Your task to perform on an android device: Search for sushi restaurants on Maps Image 0: 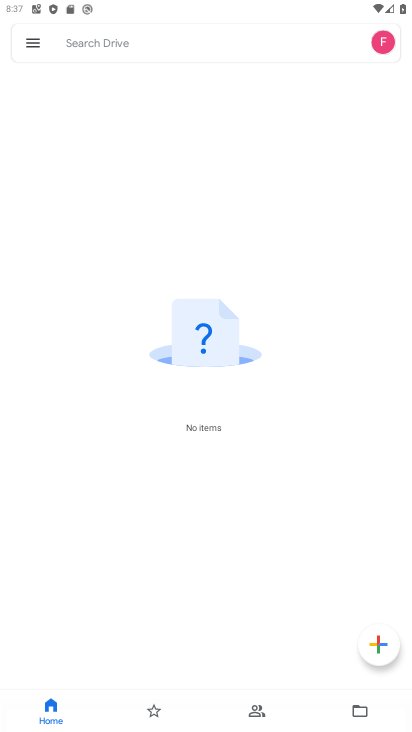
Step 0: drag from (171, 520) to (384, 125)
Your task to perform on an android device: Search for sushi restaurants on Maps Image 1: 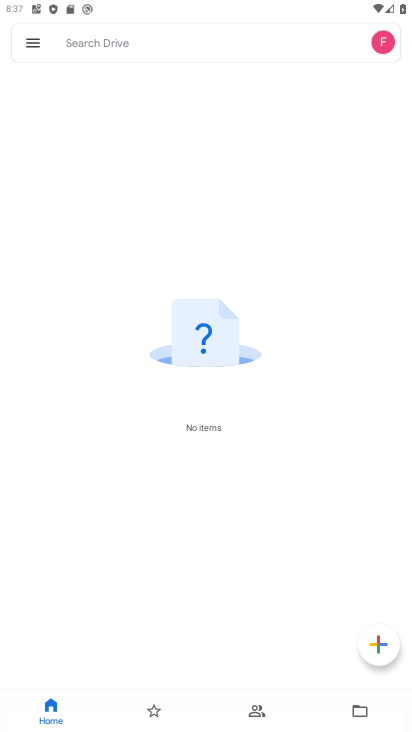
Step 1: press home button
Your task to perform on an android device: Search for sushi restaurants on Maps Image 2: 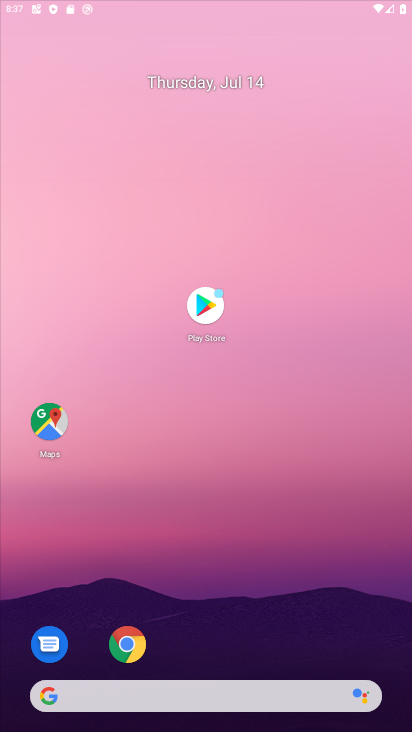
Step 2: drag from (249, 485) to (297, 177)
Your task to perform on an android device: Search for sushi restaurants on Maps Image 3: 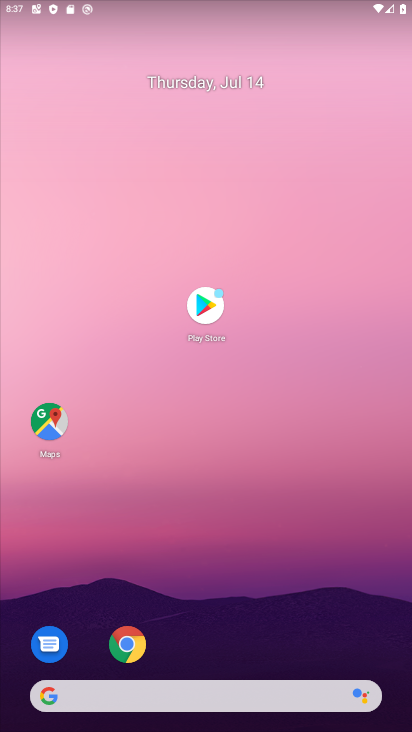
Step 3: drag from (192, 664) to (217, 377)
Your task to perform on an android device: Search for sushi restaurants on Maps Image 4: 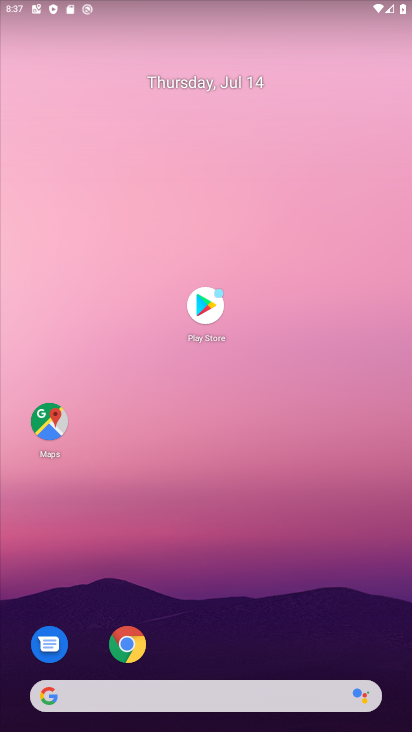
Step 4: drag from (197, 670) to (214, 192)
Your task to perform on an android device: Search for sushi restaurants on Maps Image 5: 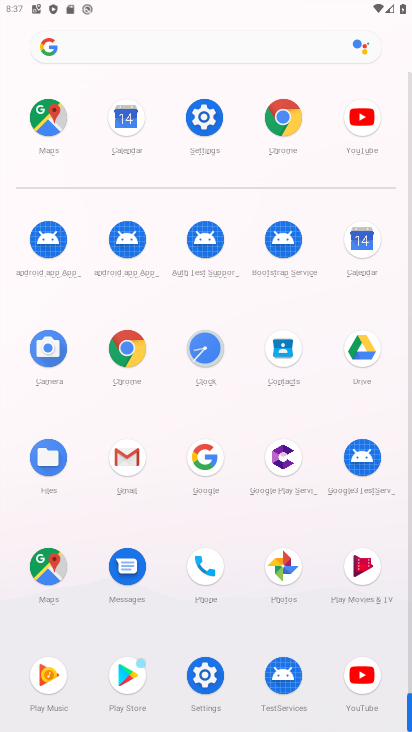
Step 5: click (45, 561)
Your task to perform on an android device: Search for sushi restaurants on Maps Image 6: 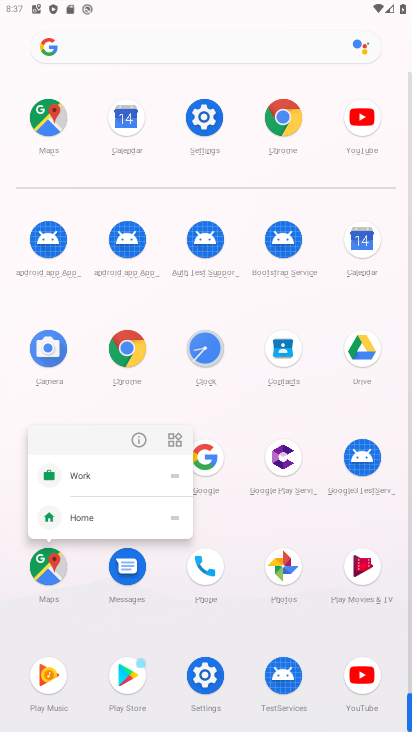
Step 6: click (140, 435)
Your task to perform on an android device: Search for sushi restaurants on Maps Image 7: 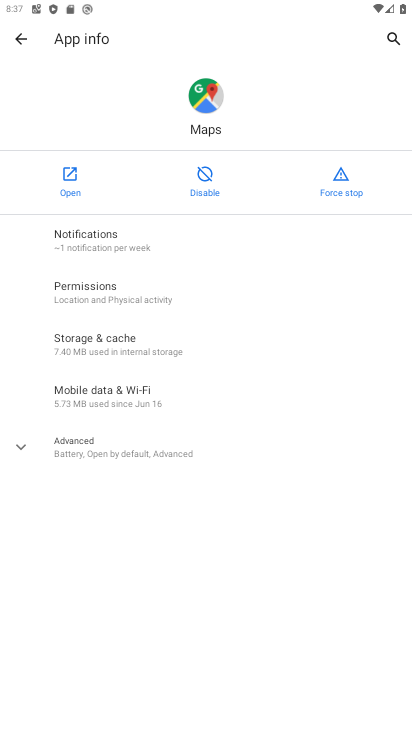
Step 7: click (79, 182)
Your task to perform on an android device: Search for sushi restaurants on Maps Image 8: 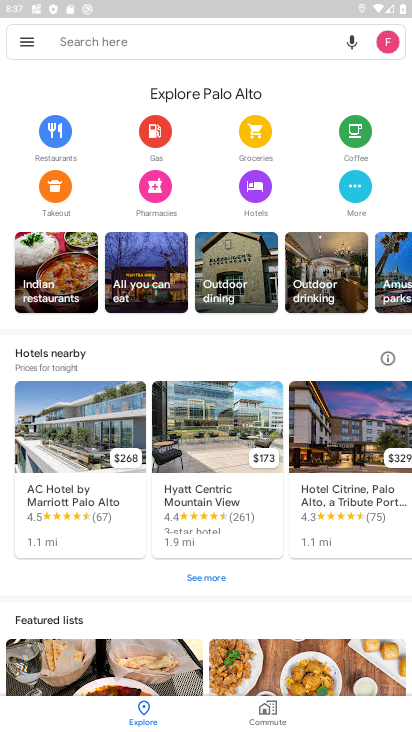
Step 8: click (108, 39)
Your task to perform on an android device: Search for sushi restaurants on Maps Image 9: 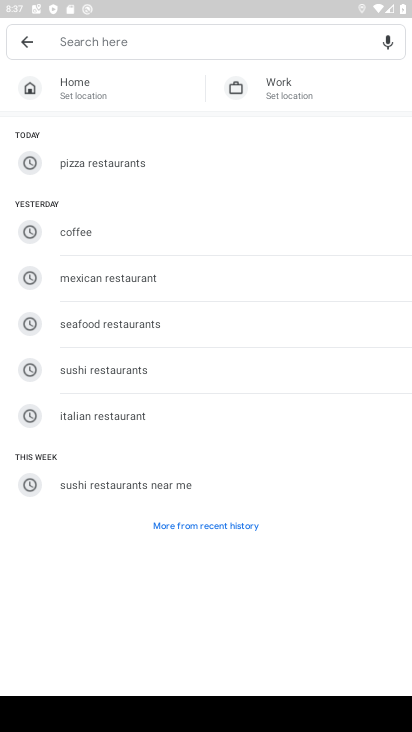
Step 9: click (107, 364)
Your task to perform on an android device: Search for sushi restaurants on Maps Image 10: 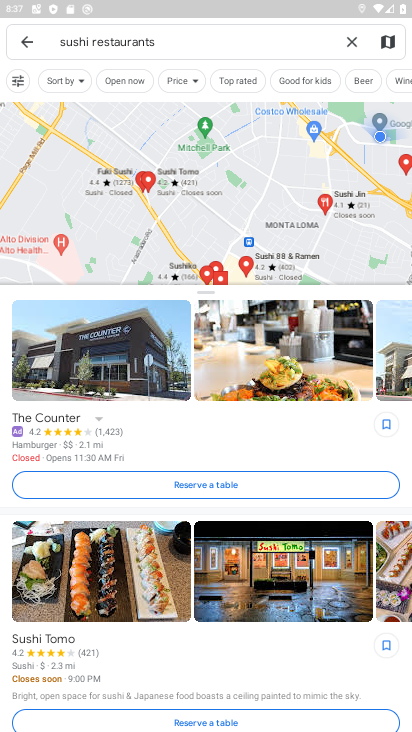
Step 10: task complete